Your task to perform on an android device: Is it going to rain tomorrow? Image 0: 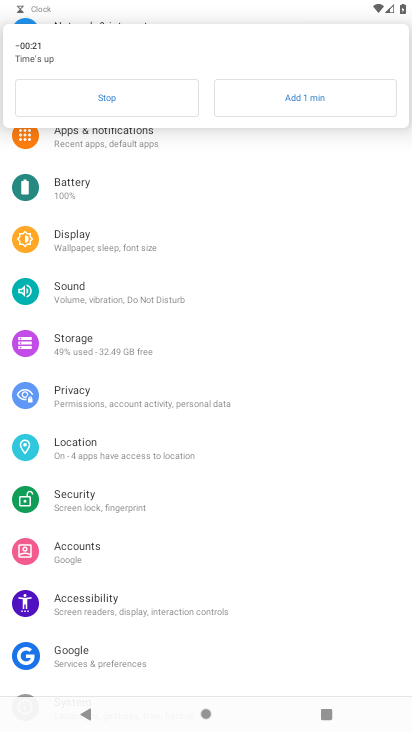
Step 0: press home button
Your task to perform on an android device: Is it going to rain tomorrow? Image 1: 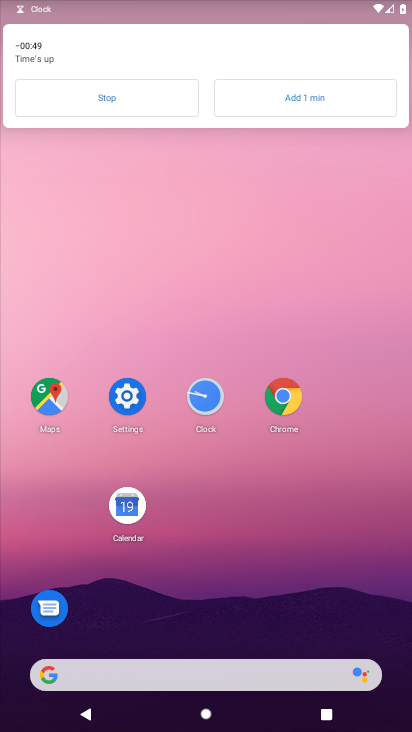
Step 1: click (50, 93)
Your task to perform on an android device: Is it going to rain tomorrow? Image 2: 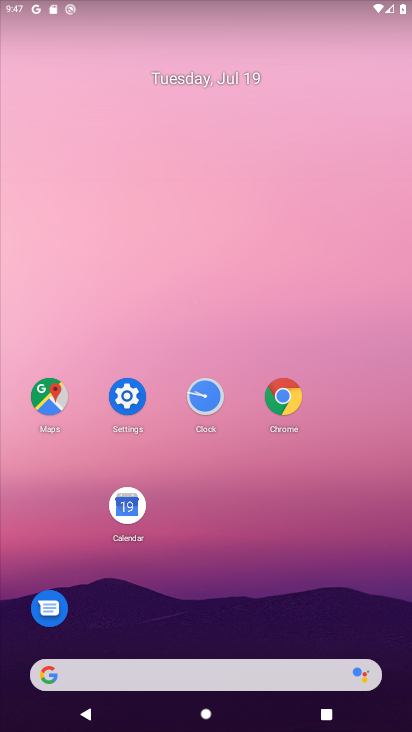
Step 2: task complete